Your task to perform on an android device: find photos in the google photos app Image 0: 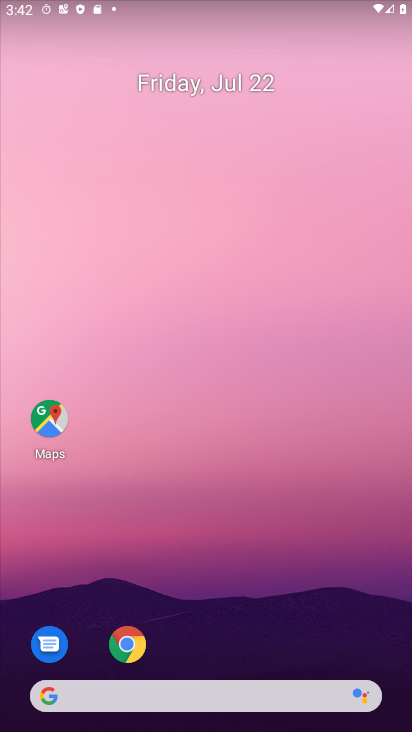
Step 0: press home button
Your task to perform on an android device: find photos in the google photos app Image 1: 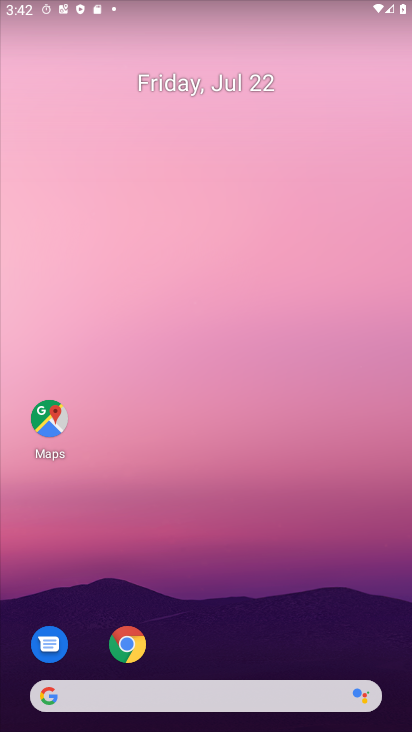
Step 1: drag from (225, 608) to (194, 118)
Your task to perform on an android device: find photos in the google photos app Image 2: 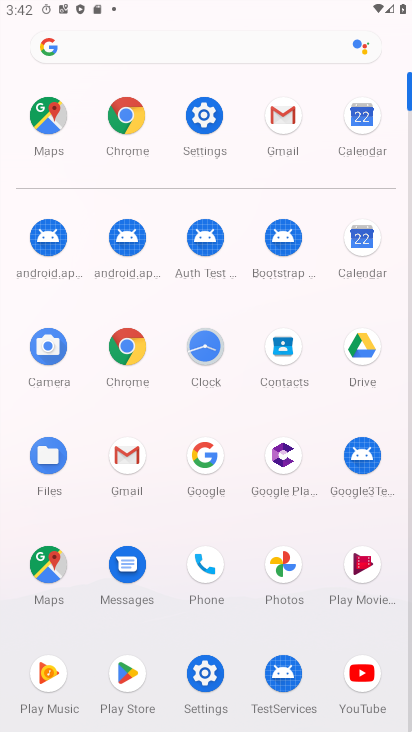
Step 2: click (282, 562)
Your task to perform on an android device: find photos in the google photos app Image 3: 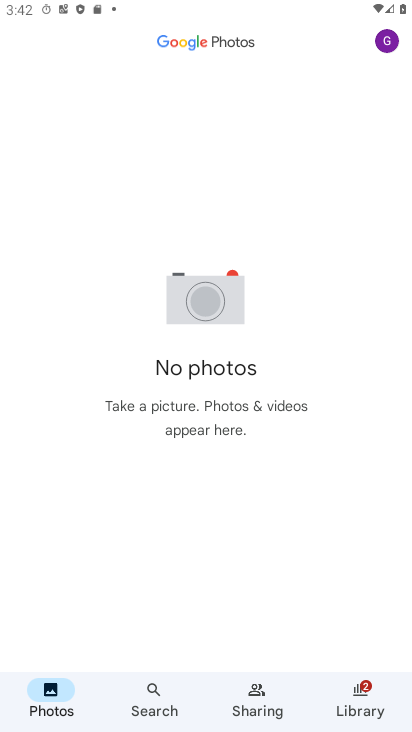
Step 3: click (41, 680)
Your task to perform on an android device: find photos in the google photos app Image 4: 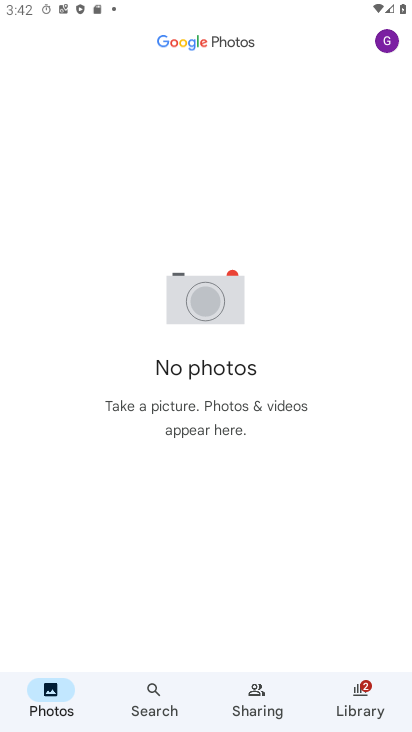
Step 4: task complete